Your task to perform on an android device: turn off priority inbox in the gmail app Image 0: 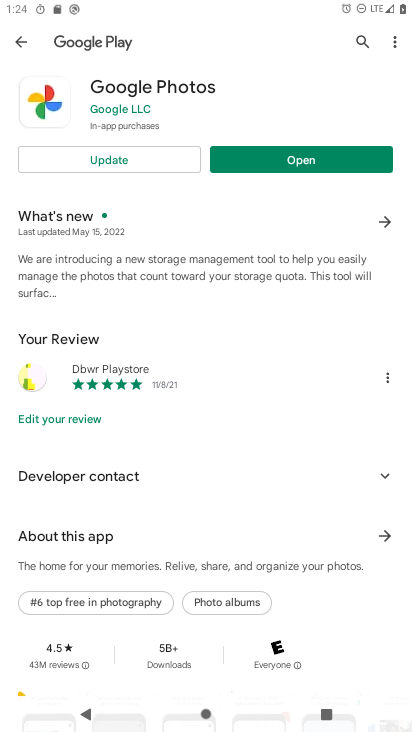
Step 0: press home button
Your task to perform on an android device: turn off priority inbox in the gmail app Image 1: 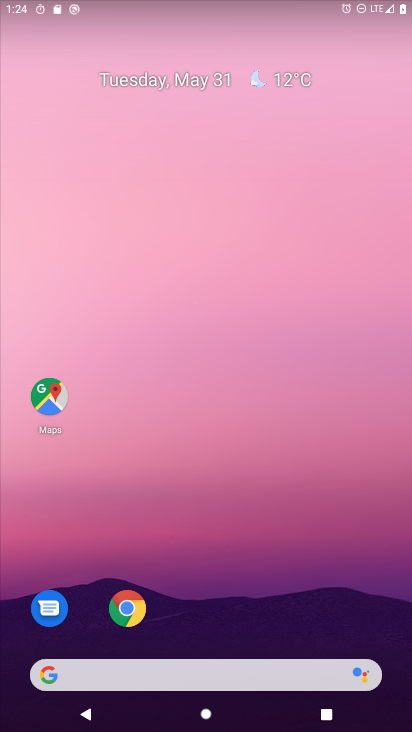
Step 1: drag from (360, 643) to (380, 27)
Your task to perform on an android device: turn off priority inbox in the gmail app Image 2: 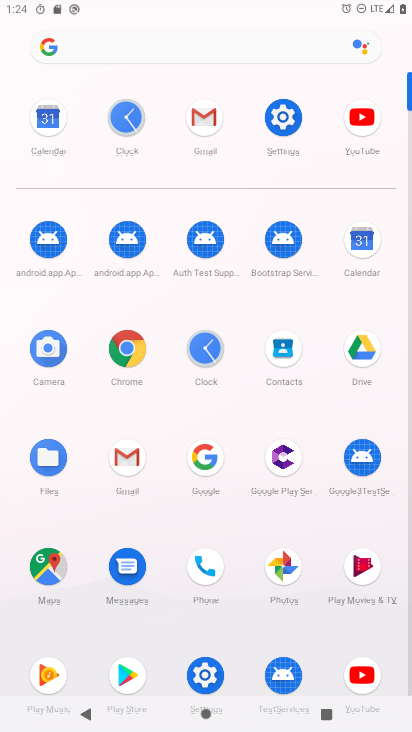
Step 2: click (200, 123)
Your task to perform on an android device: turn off priority inbox in the gmail app Image 3: 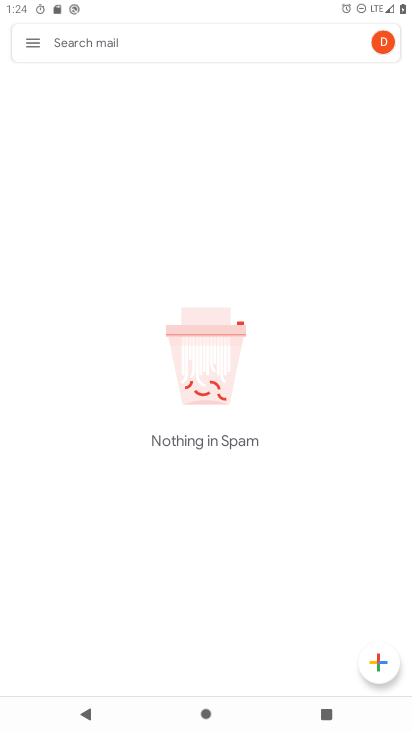
Step 3: click (29, 45)
Your task to perform on an android device: turn off priority inbox in the gmail app Image 4: 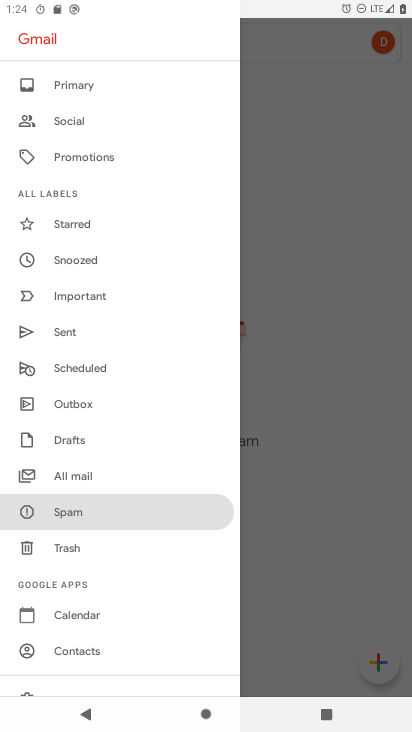
Step 4: drag from (129, 645) to (142, 163)
Your task to perform on an android device: turn off priority inbox in the gmail app Image 5: 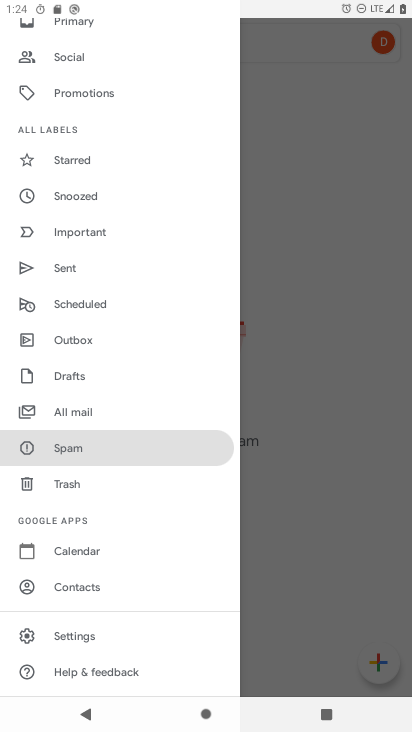
Step 5: click (64, 636)
Your task to perform on an android device: turn off priority inbox in the gmail app Image 6: 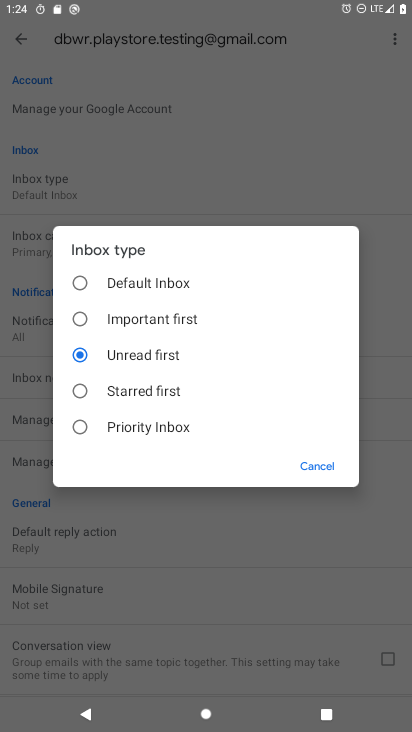
Step 6: task complete